Your task to perform on an android device: Open the map Image 0: 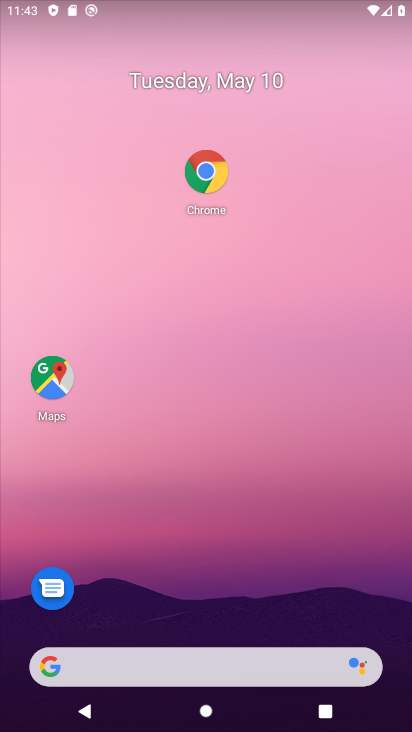
Step 0: click (281, 180)
Your task to perform on an android device: Open the map Image 1: 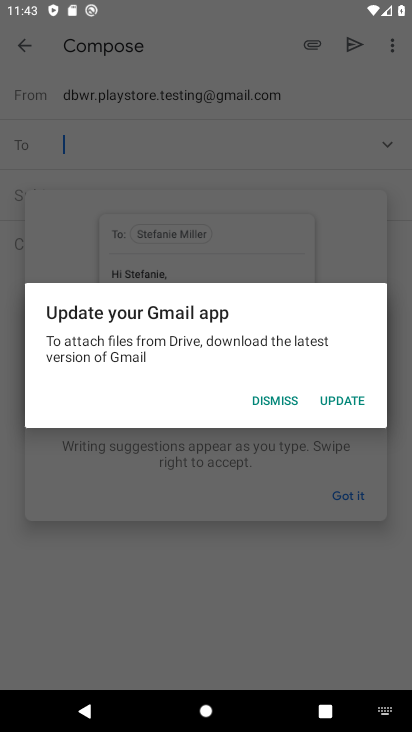
Step 1: press home button
Your task to perform on an android device: Open the map Image 2: 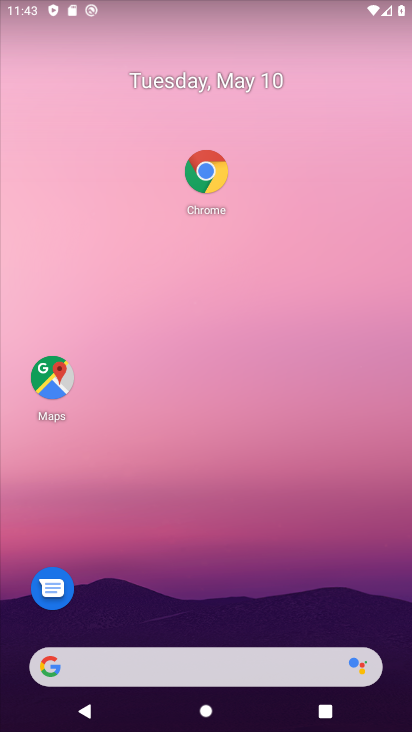
Step 2: click (58, 372)
Your task to perform on an android device: Open the map Image 3: 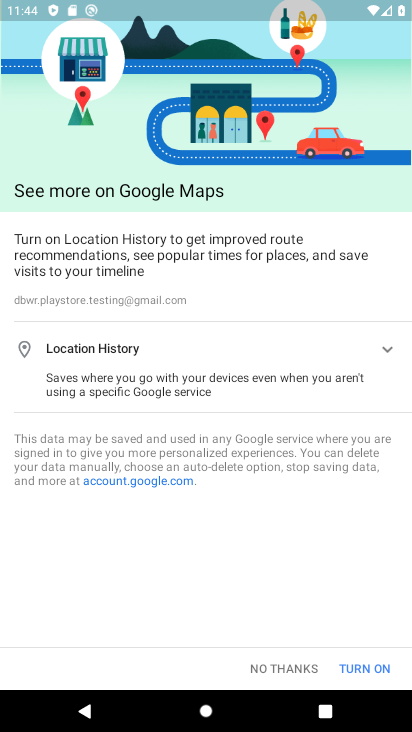
Step 3: click (294, 666)
Your task to perform on an android device: Open the map Image 4: 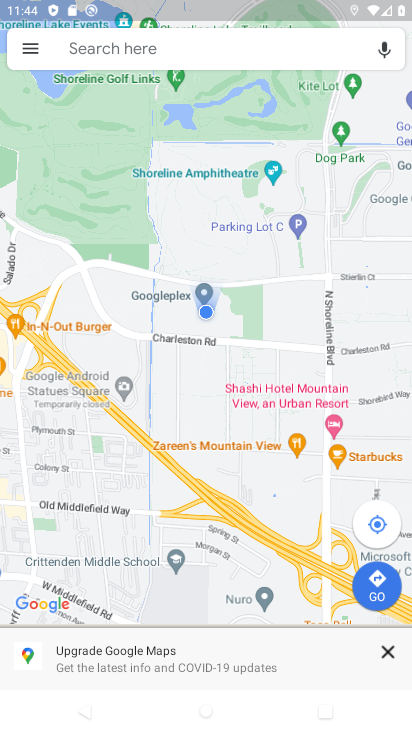
Step 4: task complete